Your task to perform on an android device: Open battery settings Image 0: 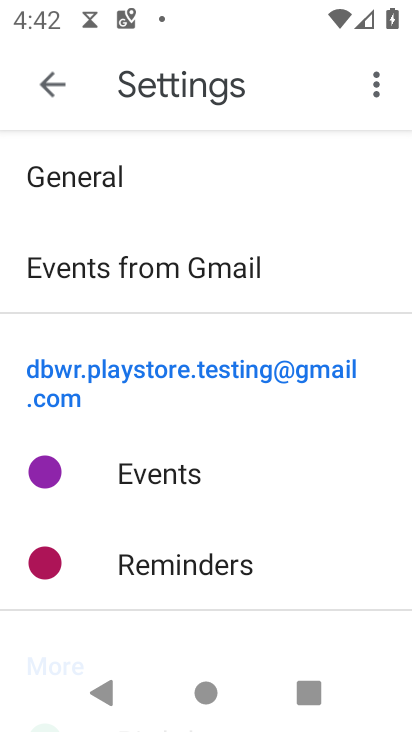
Step 0: press home button
Your task to perform on an android device: Open battery settings Image 1: 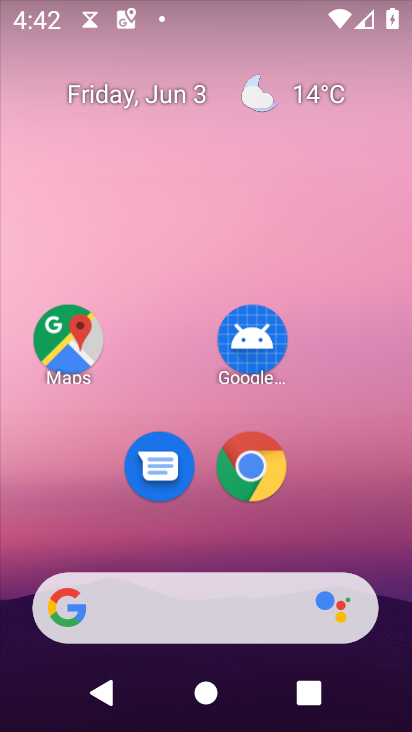
Step 1: drag from (320, 455) to (297, 73)
Your task to perform on an android device: Open battery settings Image 2: 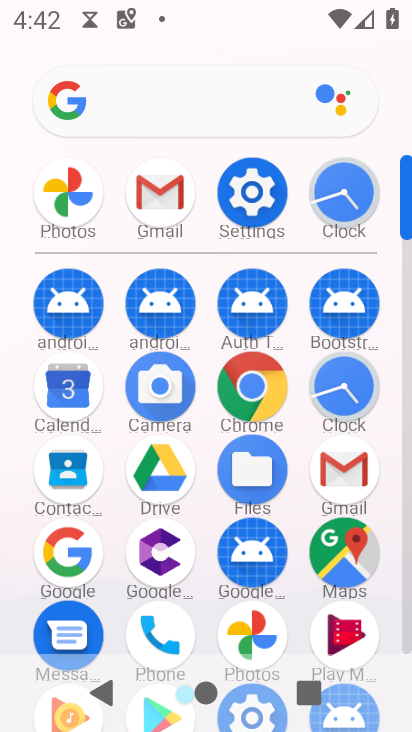
Step 2: click (257, 185)
Your task to perform on an android device: Open battery settings Image 3: 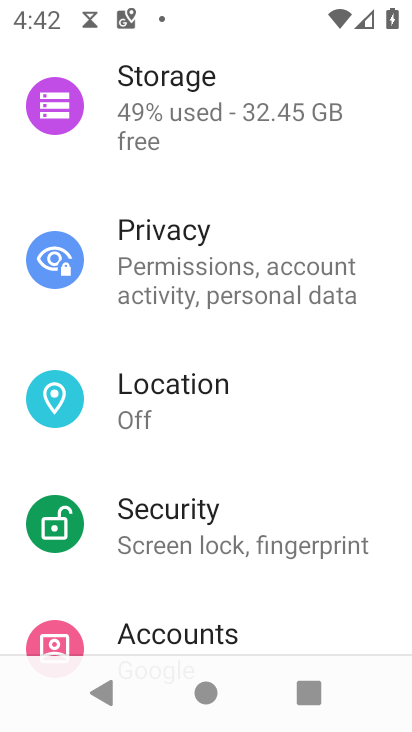
Step 3: drag from (277, 137) to (283, 452)
Your task to perform on an android device: Open battery settings Image 4: 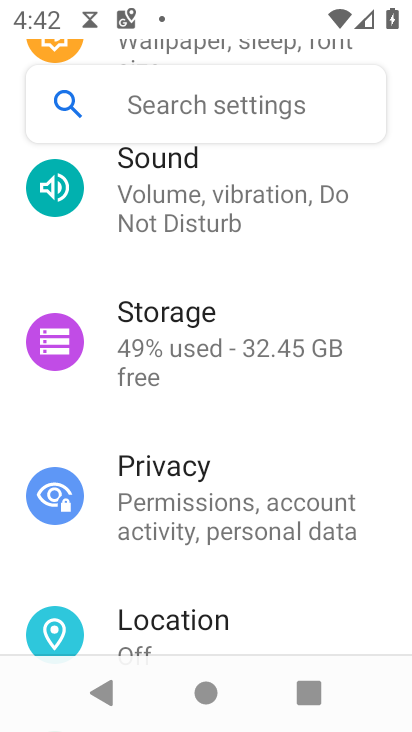
Step 4: drag from (292, 195) to (298, 545)
Your task to perform on an android device: Open battery settings Image 5: 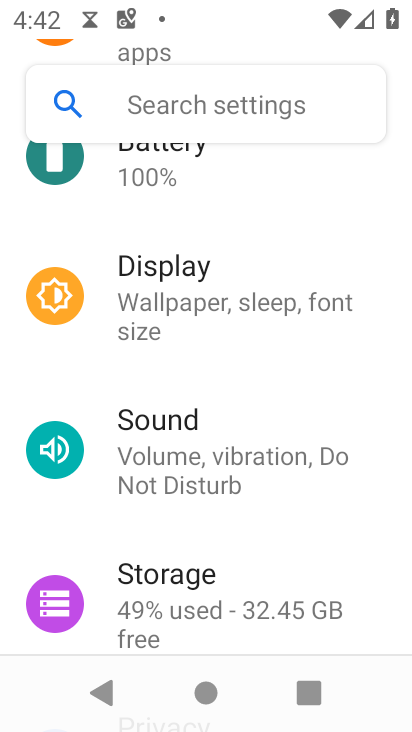
Step 5: drag from (305, 241) to (310, 471)
Your task to perform on an android device: Open battery settings Image 6: 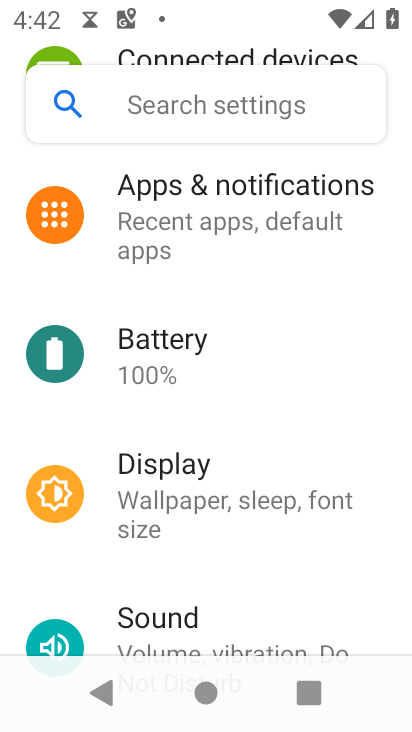
Step 6: click (232, 354)
Your task to perform on an android device: Open battery settings Image 7: 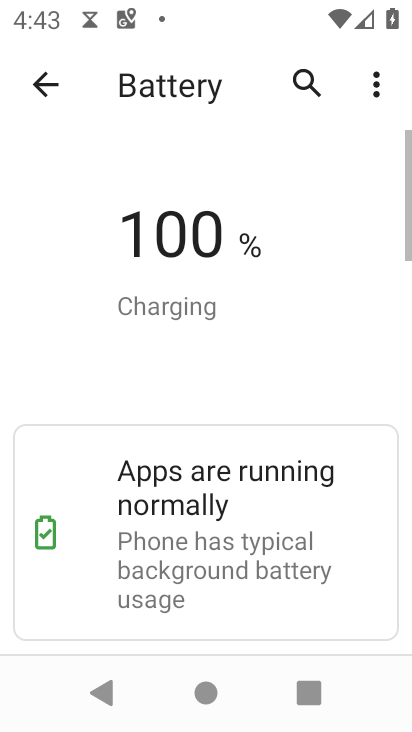
Step 7: task complete